Your task to perform on an android device: uninstall "Google Find My Device" Image 0: 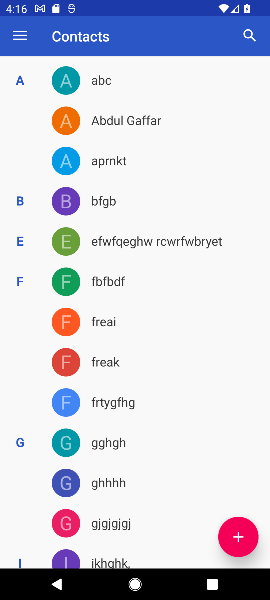
Step 0: press home button
Your task to perform on an android device: uninstall "Google Find My Device" Image 1: 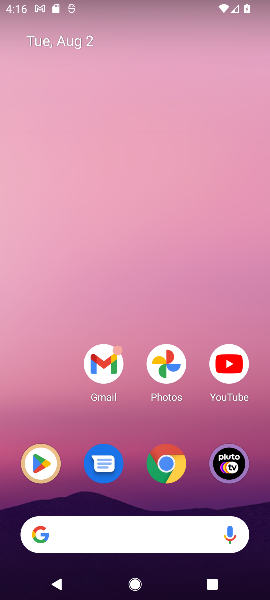
Step 1: click (43, 460)
Your task to perform on an android device: uninstall "Google Find My Device" Image 2: 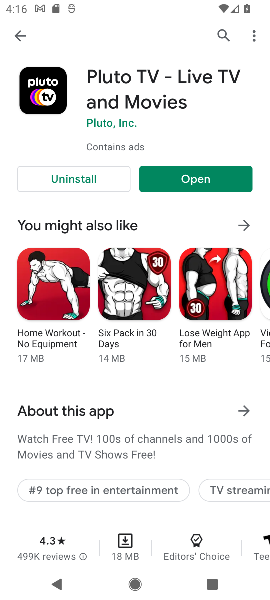
Step 2: click (221, 32)
Your task to perform on an android device: uninstall "Google Find My Device" Image 3: 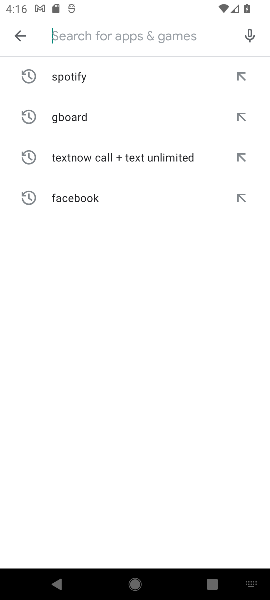
Step 3: type "Google Find My Device"
Your task to perform on an android device: uninstall "Google Find My Device" Image 4: 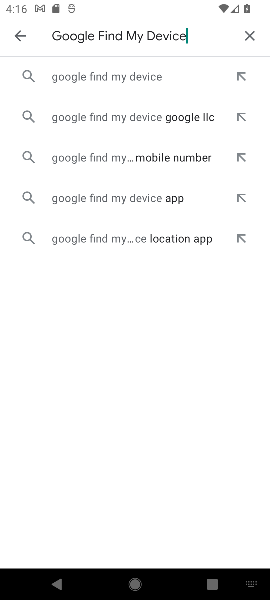
Step 4: click (109, 72)
Your task to perform on an android device: uninstall "Google Find My Device" Image 5: 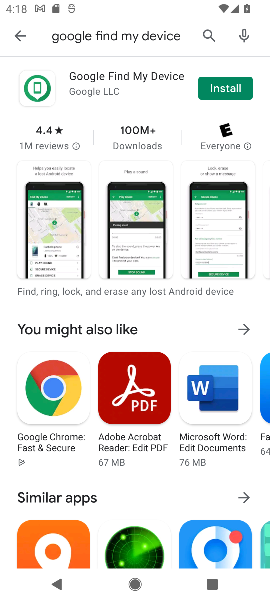
Step 5: task complete